Your task to perform on an android device: find which apps use the phone's location Image 0: 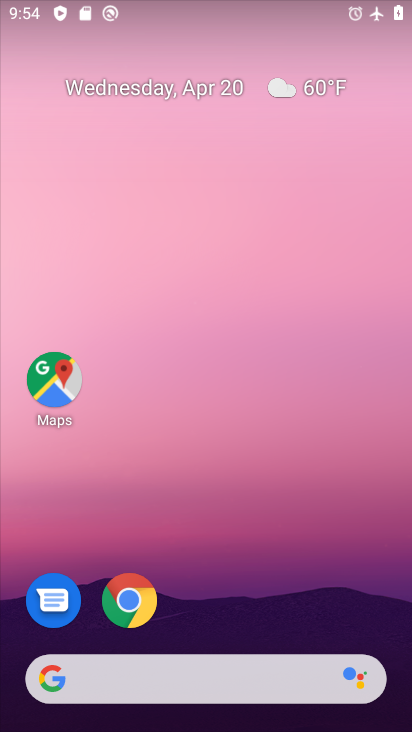
Step 0: drag from (227, 651) to (174, 39)
Your task to perform on an android device: find which apps use the phone's location Image 1: 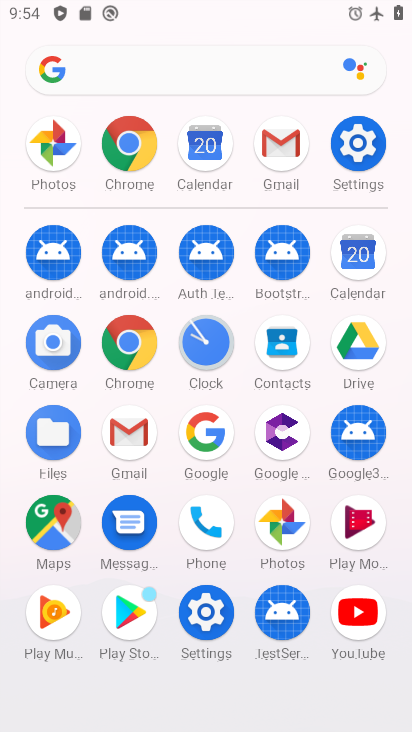
Step 1: click (362, 136)
Your task to perform on an android device: find which apps use the phone's location Image 2: 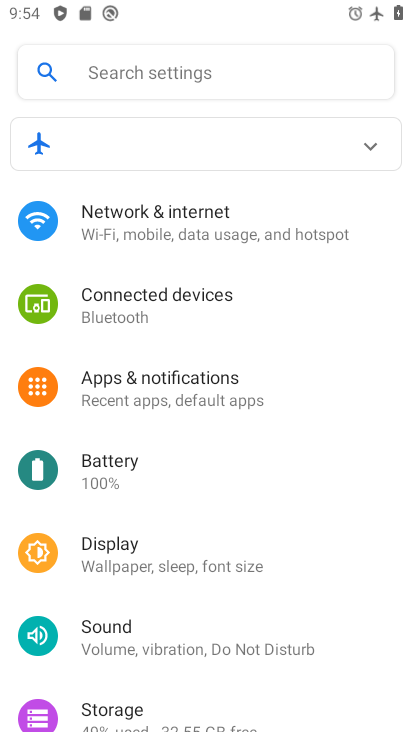
Step 2: drag from (167, 551) to (130, 238)
Your task to perform on an android device: find which apps use the phone's location Image 3: 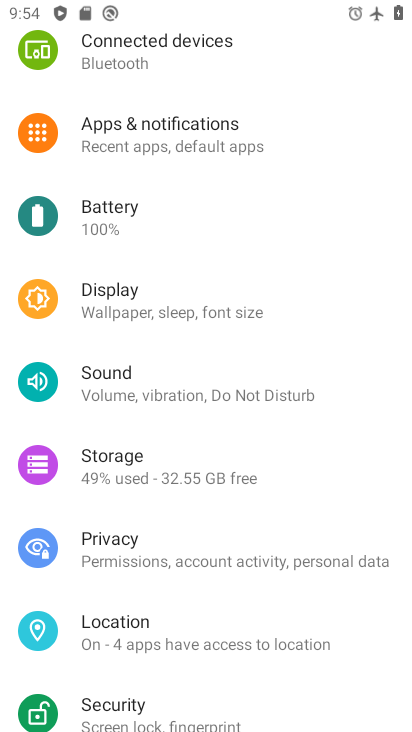
Step 3: click (118, 622)
Your task to perform on an android device: find which apps use the phone's location Image 4: 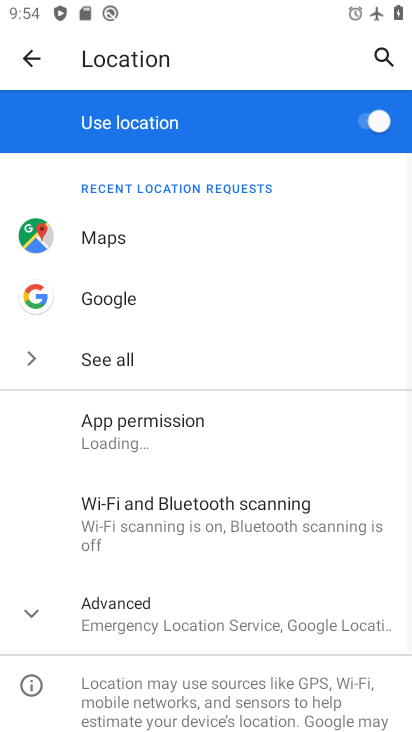
Step 4: click (109, 435)
Your task to perform on an android device: find which apps use the phone's location Image 5: 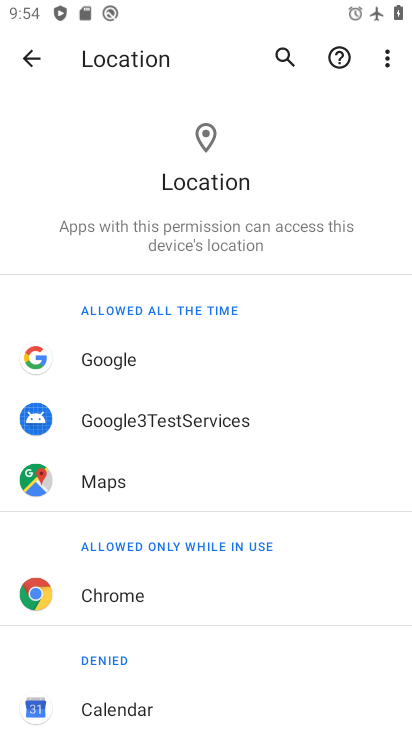
Step 5: task complete